Your task to perform on an android device: toggle pop-ups in chrome Image 0: 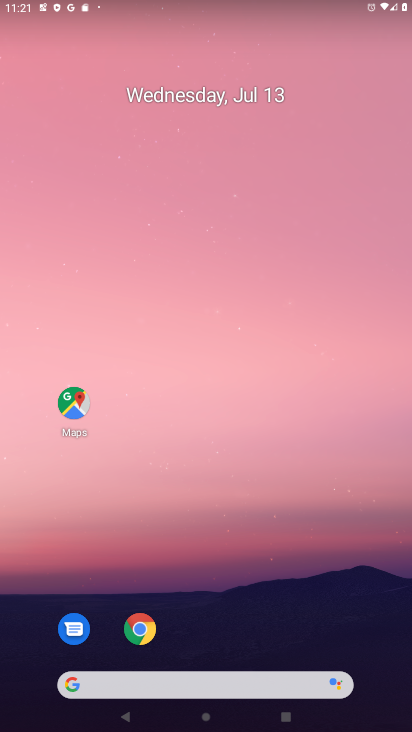
Step 0: click (155, 628)
Your task to perform on an android device: toggle pop-ups in chrome Image 1: 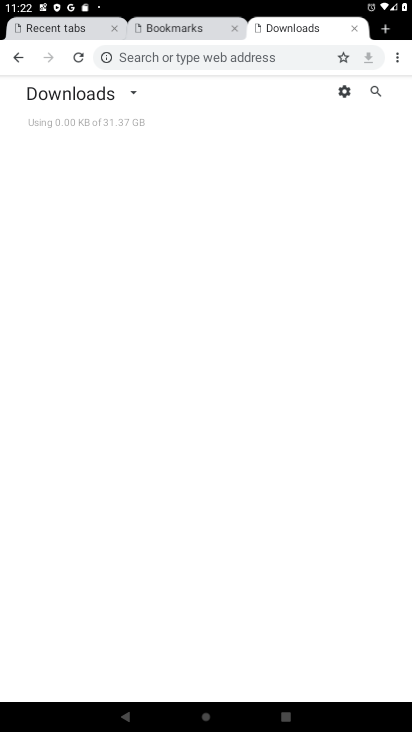
Step 1: click (403, 66)
Your task to perform on an android device: toggle pop-ups in chrome Image 2: 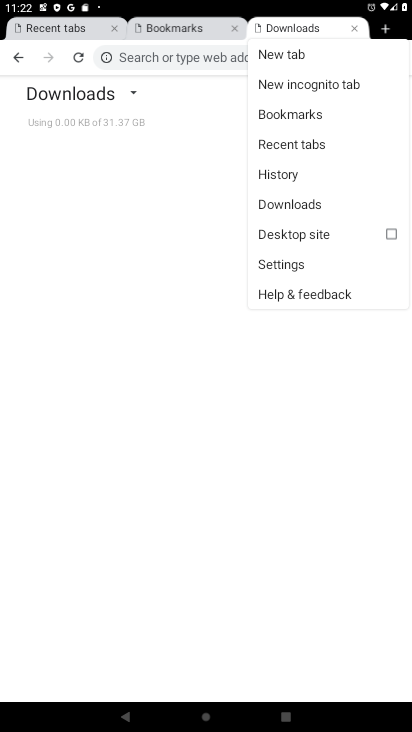
Step 2: click (319, 263)
Your task to perform on an android device: toggle pop-ups in chrome Image 3: 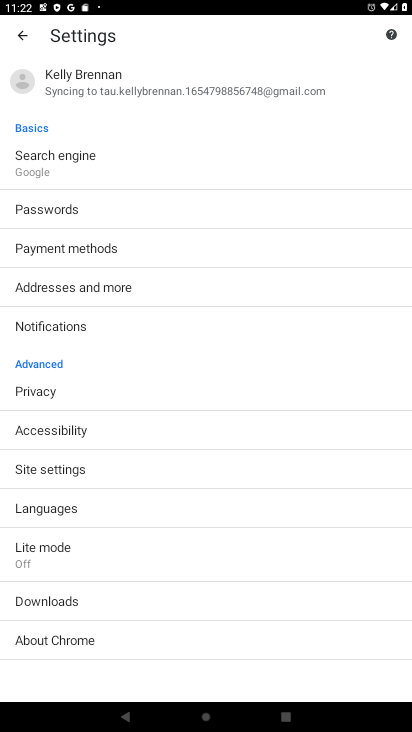
Step 3: click (131, 470)
Your task to perform on an android device: toggle pop-ups in chrome Image 4: 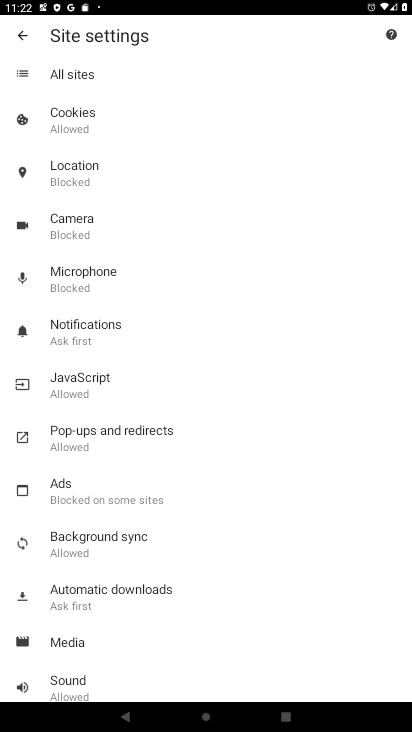
Step 4: click (151, 453)
Your task to perform on an android device: toggle pop-ups in chrome Image 5: 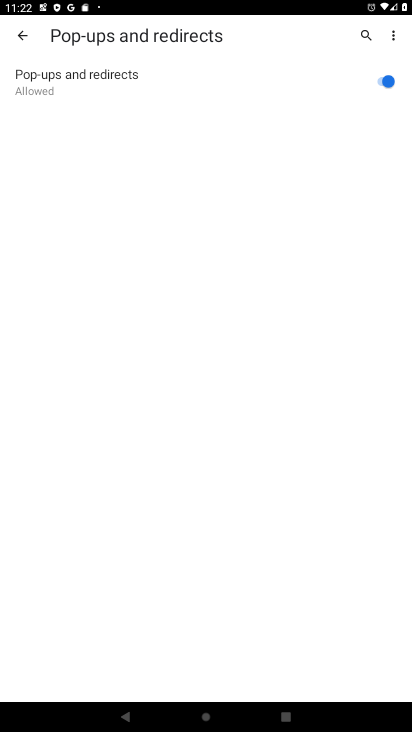
Step 5: task complete